Your task to perform on an android device: Open Google Chrome and click the shortcut for Amazon.com Image 0: 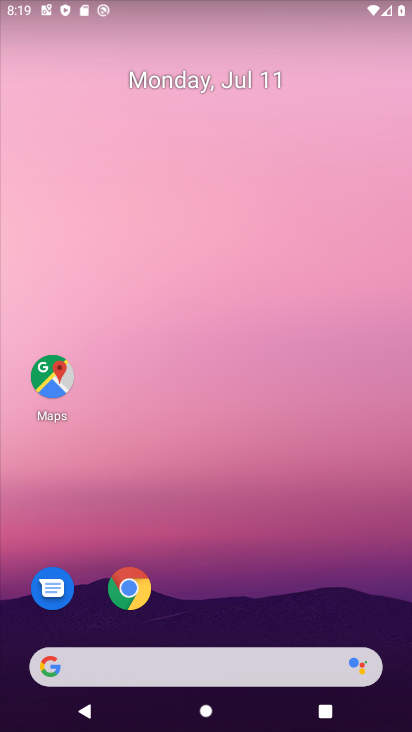
Step 0: click (132, 593)
Your task to perform on an android device: Open Google Chrome and click the shortcut for Amazon.com Image 1: 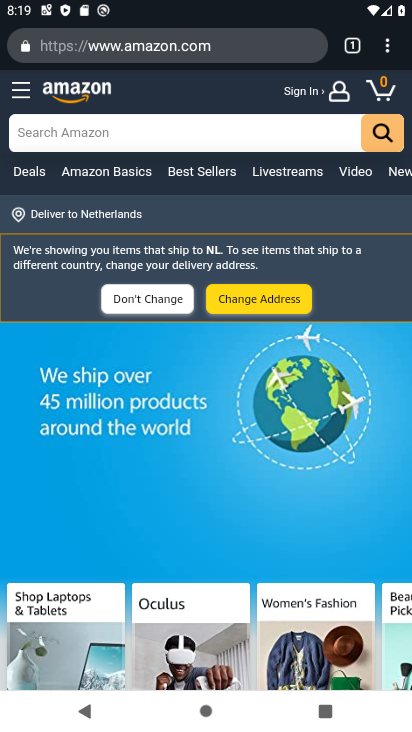
Step 1: click (387, 42)
Your task to perform on an android device: Open Google Chrome and click the shortcut for Amazon.com Image 2: 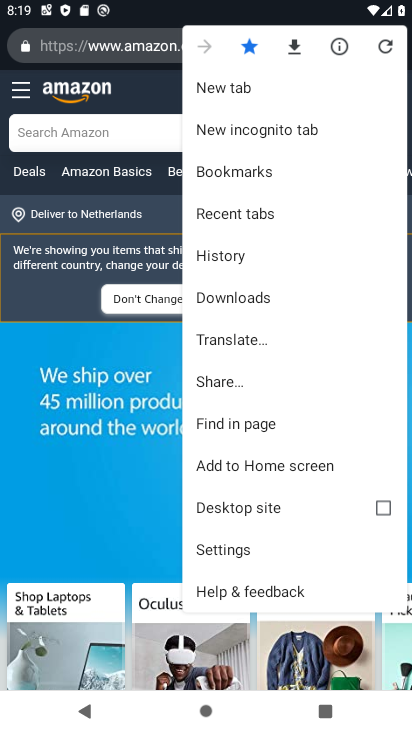
Step 2: click (262, 84)
Your task to perform on an android device: Open Google Chrome and click the shortcut for Amazon.com Image 3: 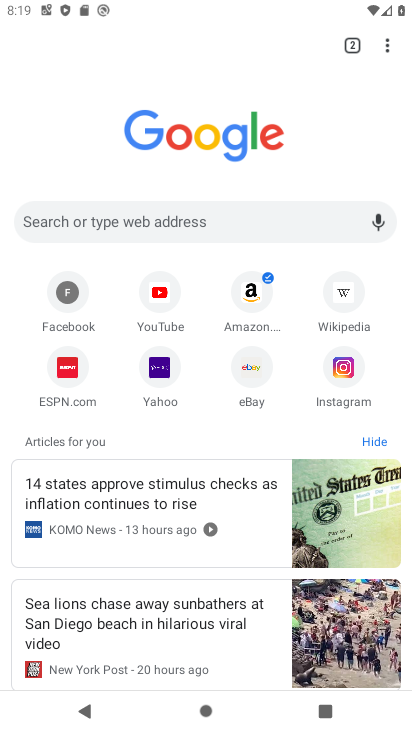
Step 3: click (259, 295)
Your task to perform on an android device: Open Google Chrome and click the shortcut for Amazon.com Image 4: 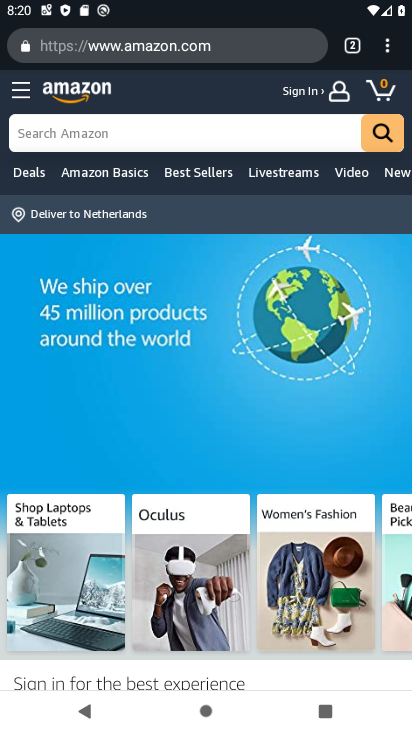
Step 4: task complete